Your task to perform on an android device: turn on the 24-hour format for clock Image 0: 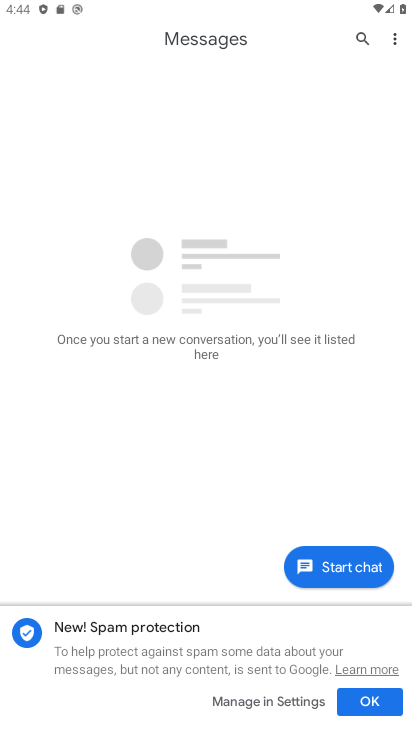
Step 0: press home button
Your task to perform on an android device: turn on the 24-hour format for clock Image 1: 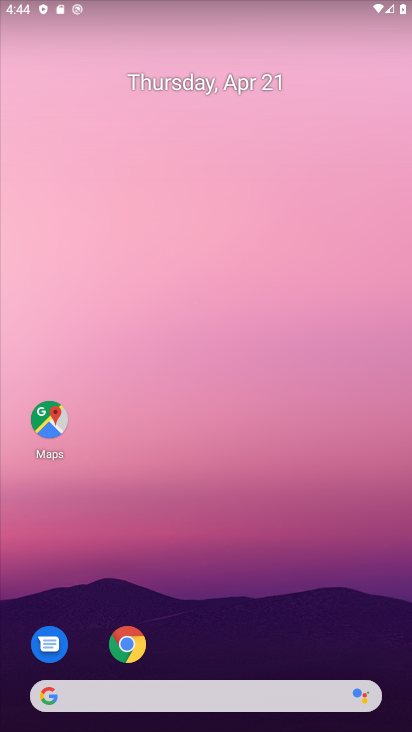
Step 1: drag from (269, 617) to (284, 213)
Your task to perform on an android device: turn on the 24-hour format for clock Image 2: 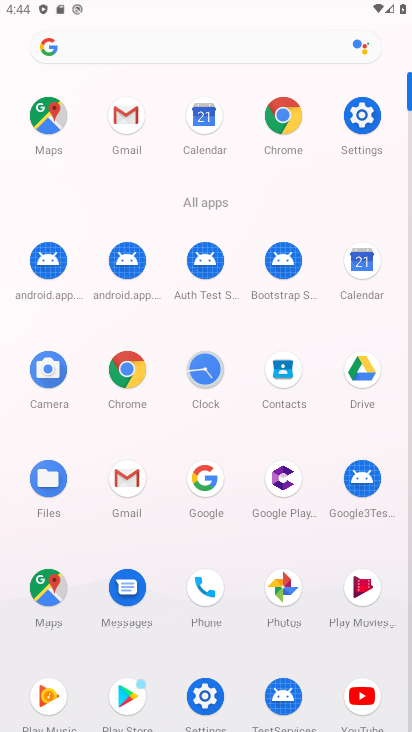
Step 2: click (201, 374)
Your task to perform on an android device: turn on the 24-hour format for clock Image 3: 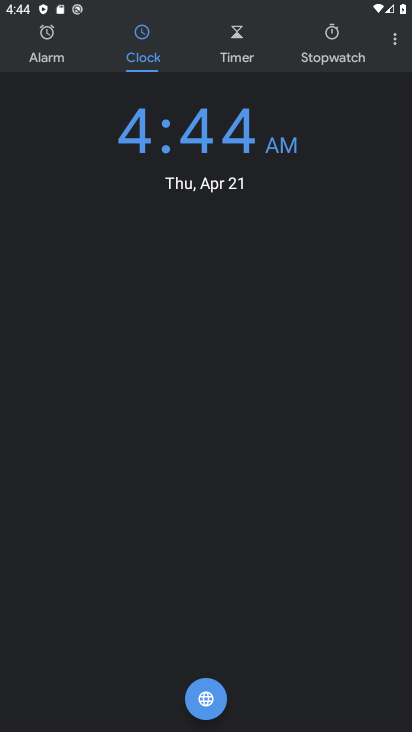
Step 3: click (394, 45)
Your task to perform on an android device: turn on the 24-hour format for clock Image 4: 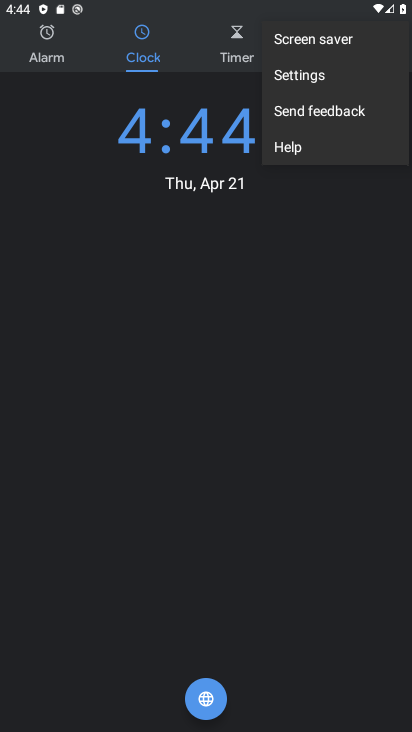
Step 4: click (307, 80)
Your task to perform on an android device: turn on the 24-hour format for clock Image 5: 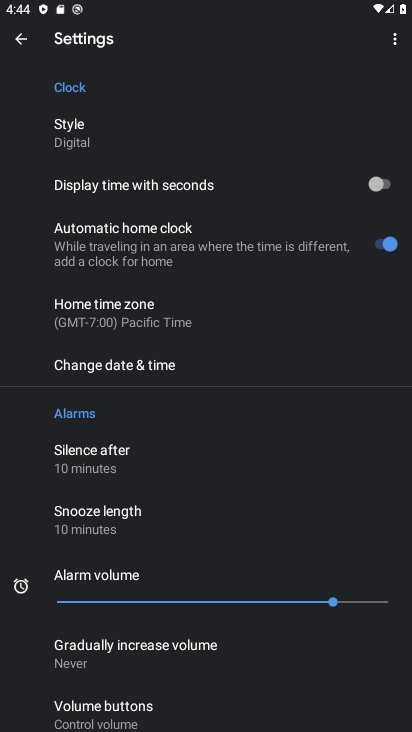
Step 5: click (155, 375)
Your task to perform on an android device: turn on the 24-hour format for clock Image 6: 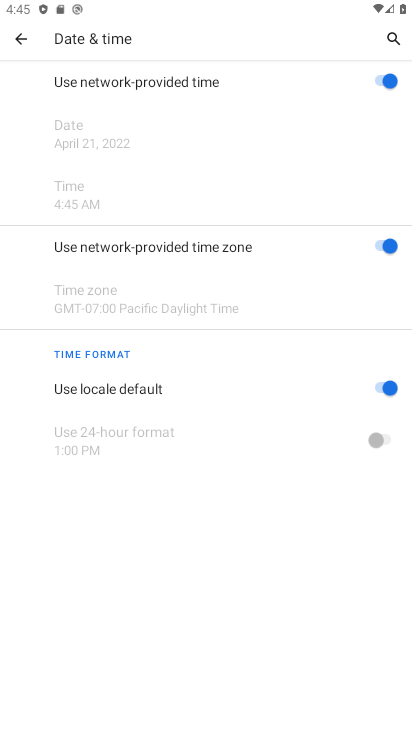
Step 6: click (382, 400)
Your task to perform on an android device: turn on the 24-hour format for clock Image 7: 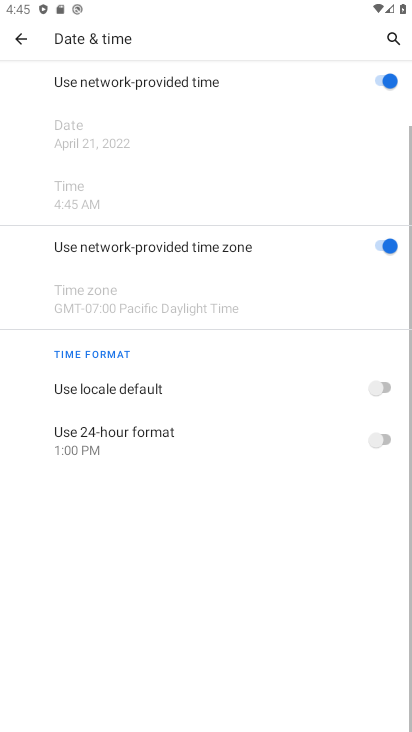
Step 7: click (384, 441)
Your task to perform on an android device: turn on the 24-hour format for clock Image 8: 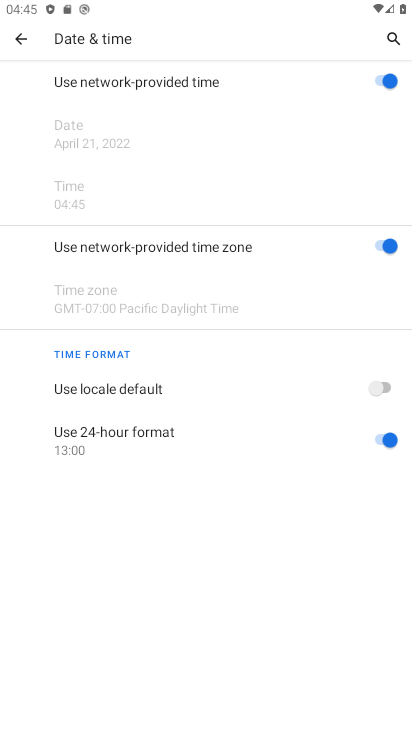
Step 8: task complete